Your task to perform on an android device: turn off smart reply in the gmail app Image 0: 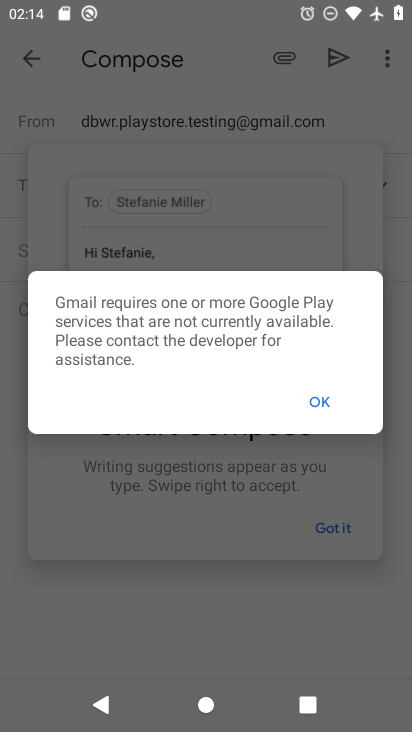
Step 0: press home button
Your task to perform on an android device: turn off smart reply in the gmail app Image 1: 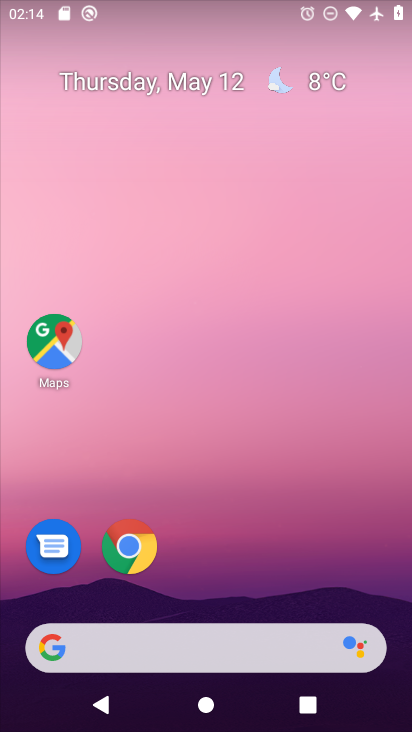
Step 1: drag from (150, 652) to (202, 216)
Your task to perform on an android device: turn off smart reply in the gmail app Image 2: 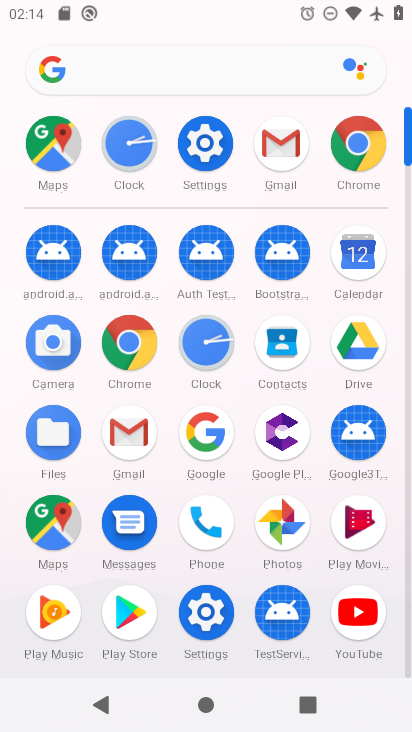
Step 2: click (281, 157)
Your task to perform on an android device: turn off smart reply in the gmail app Image 3: 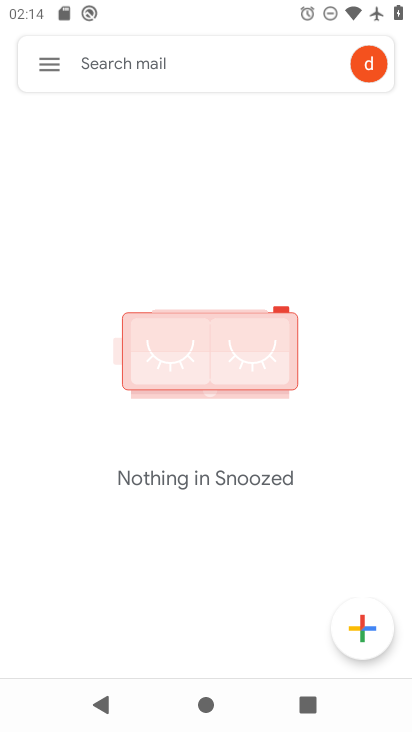
Step 3: click (50, 65)
Your task to perform on an android device: turn off smart reply in the gmail app Image 4: 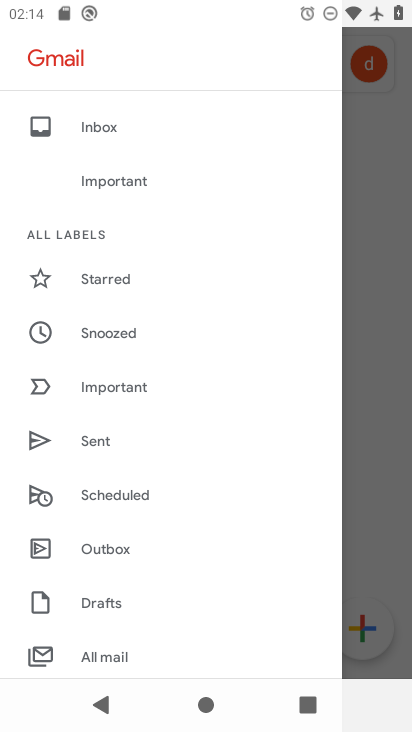
Step 4: drag from (188, 622) to (192, 166)
Your task to perform on an android device: turn off smart reply in the gmail app Image 5: 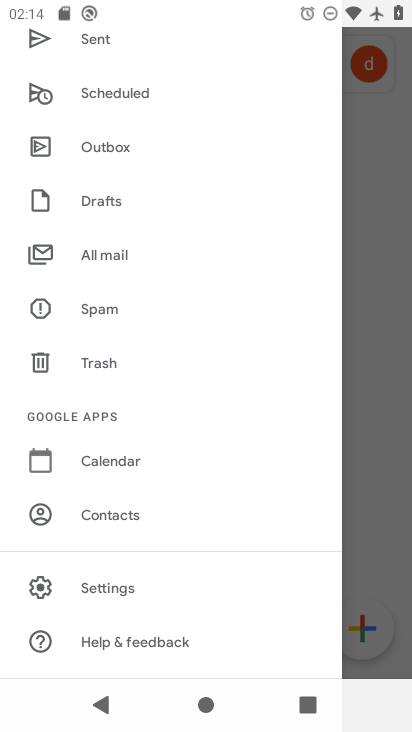
Step 5: click (109, 584)
Your task to perform on an android device: turn off smart reply in the gmail app Image 6: 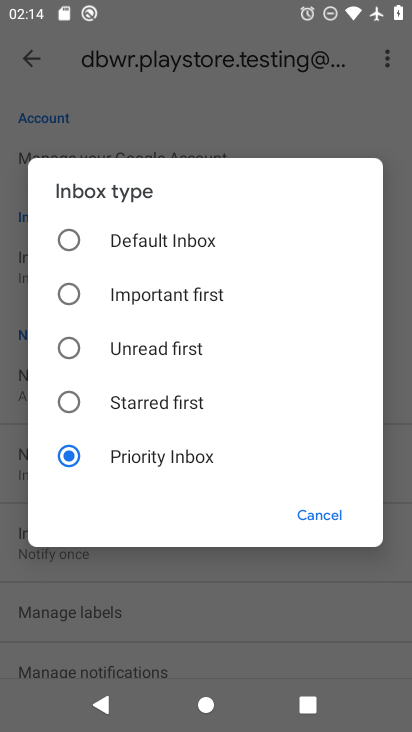
Step 6: click (300, 515)
Your task to perform on an android device: turn off smart reply in the gmail app Image 7: 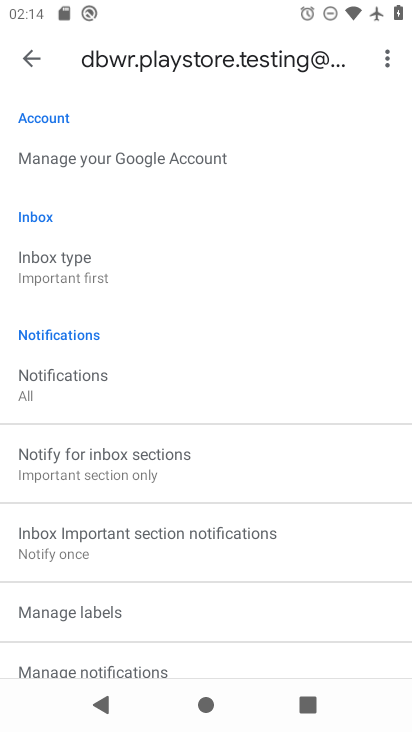
Step 7: drag from (200, 605) to (285, 32)
Your task to perform on an android device: turn off smart reply in the gmail app Image 8: 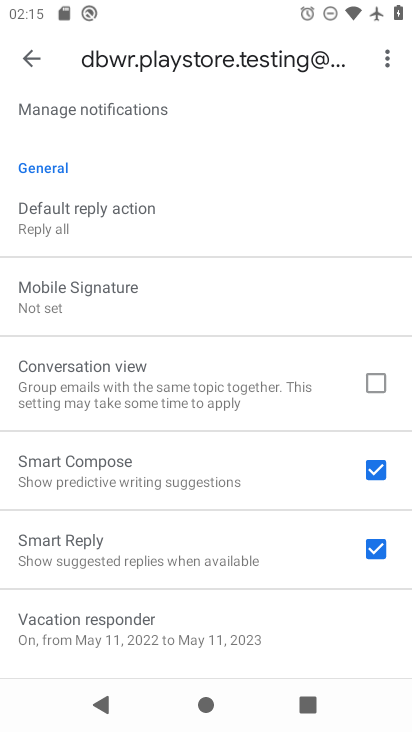
Step 8: click (371, 548)
Your task to perform on an android device: turn off smart reply in the gmail app Image 9: 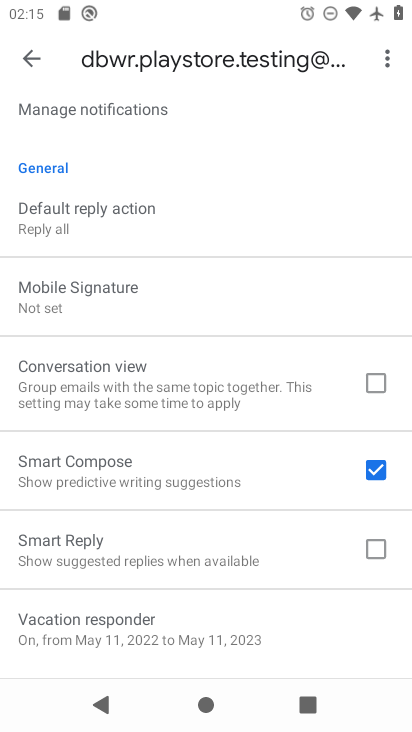
Step 9: task complete